Your task to perform on an android device: stop showing notifications on the lock screen Image 0: 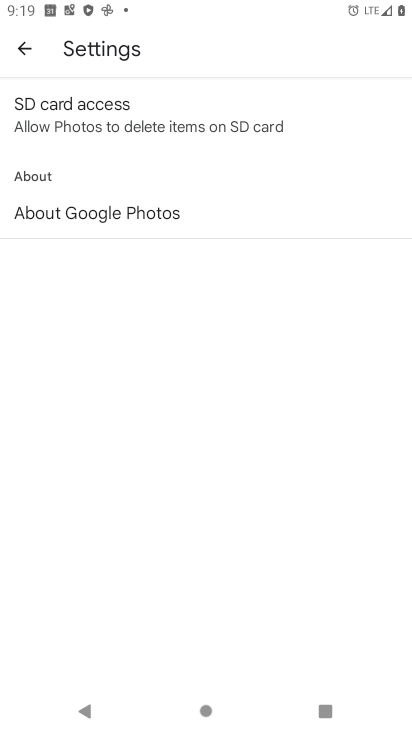
Step 0: press home button
Your task to perform on an android device: stop showing notifications on the lock screen Image 1: 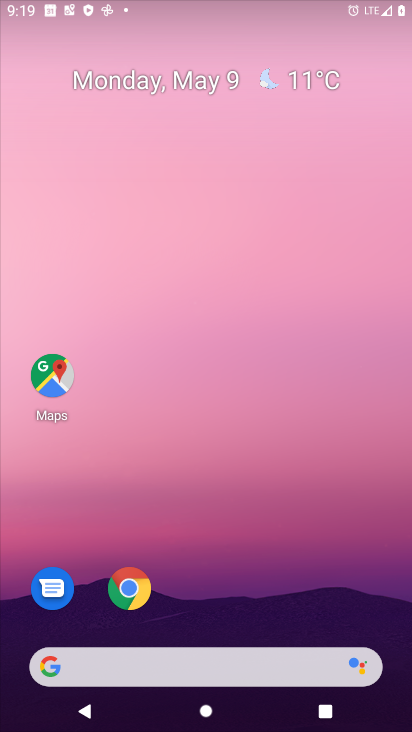
Step 1: drag from (310, 622) to (210, 85)
Your task to perform on an android device: stop showing notifications on the lock screen Image 2: 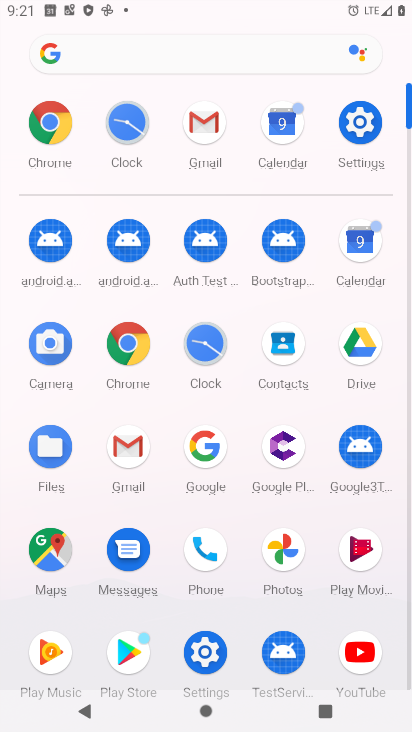
Step 2: click (207, 637)
Your task to perform on an android device: stop showing notifications on the lock screen Image 3: 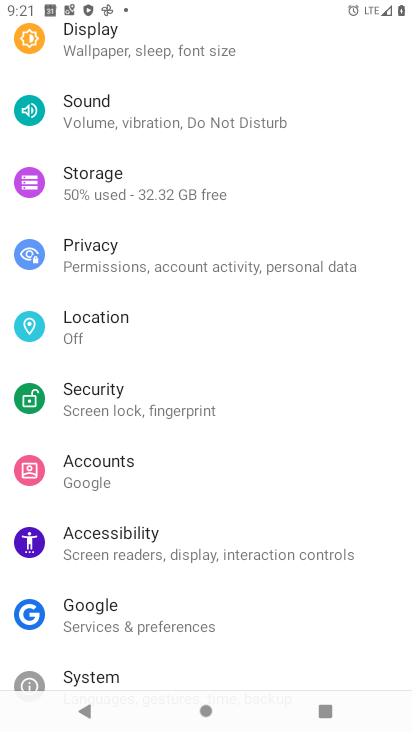
Step 3: drag from (177, 248) to (174, 706)
Your task to perform on an android device: stop showing notifications on the lock screen Image 4: 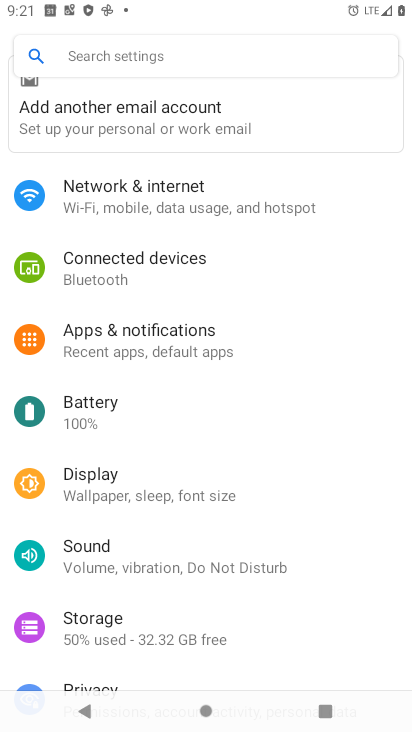
Step 4: click (193, 334)
Your task to perform on an android device: stop showing notifications on the lock screen Image 5: 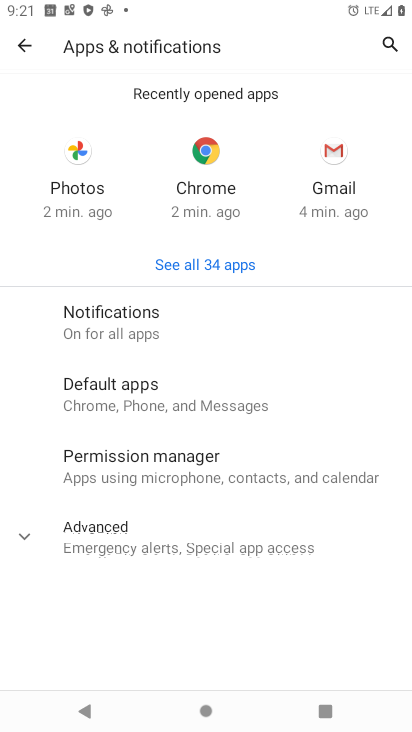
Step 5: click (193, 334)
Your task to perform on an android device: stop showing notifications on the lock screen Image 6: 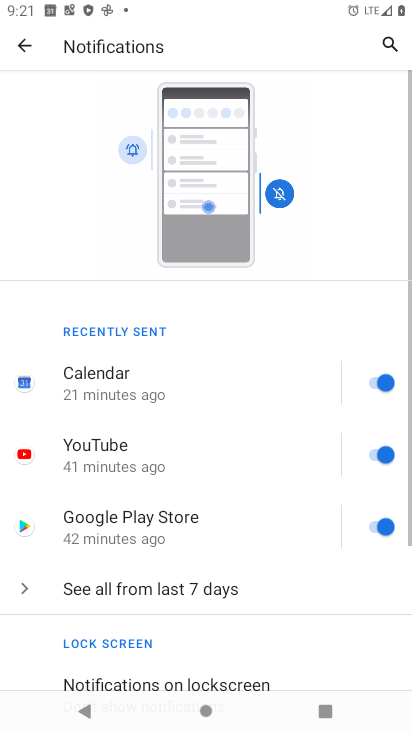
Step 6: click (189, 681)
Your task to perform on an android device: stop showing notifications on the lock screen Image 7: 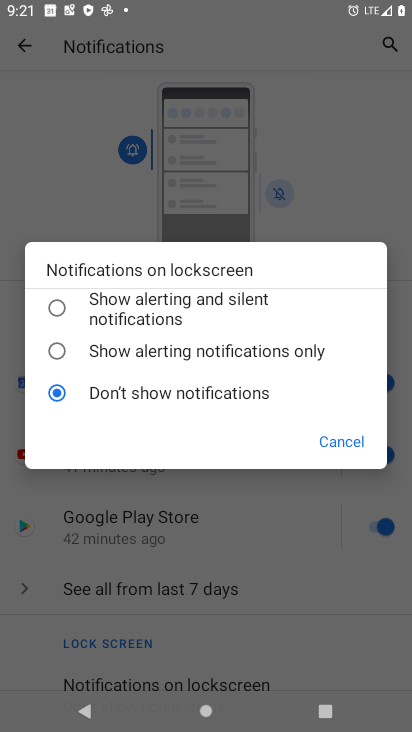
Step 7: task complete